Your task to perform on an android device: turn on javascript in the chrome app Image 0: 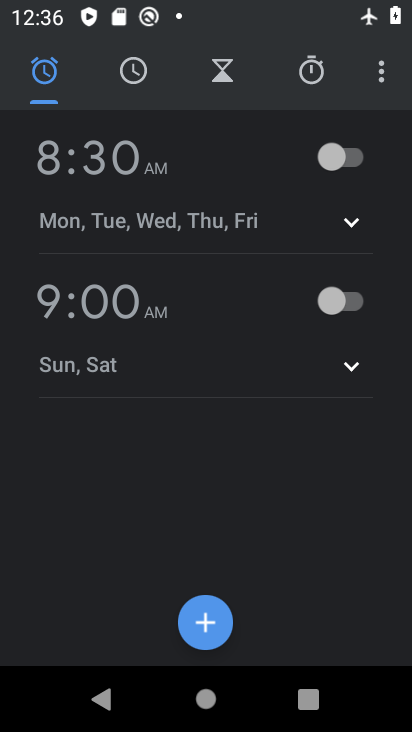
Step 0: press home button
Your task to perform on an android device: turn on javascript in the chrome app Image 1: 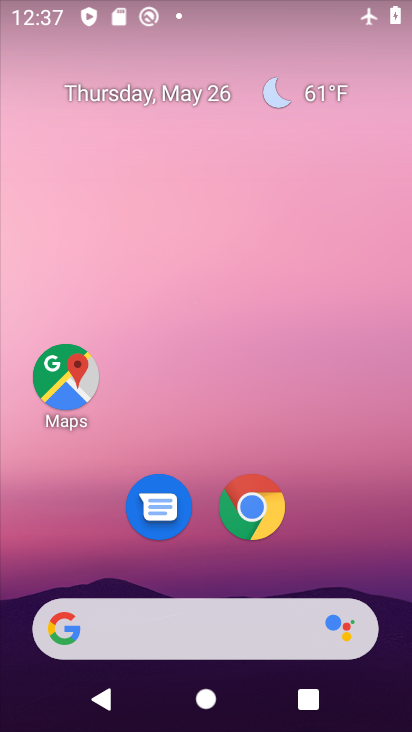
Step 1: click (259, 513)
Your task to perform on an android device: turn on javascript in the chrome app Image 2: 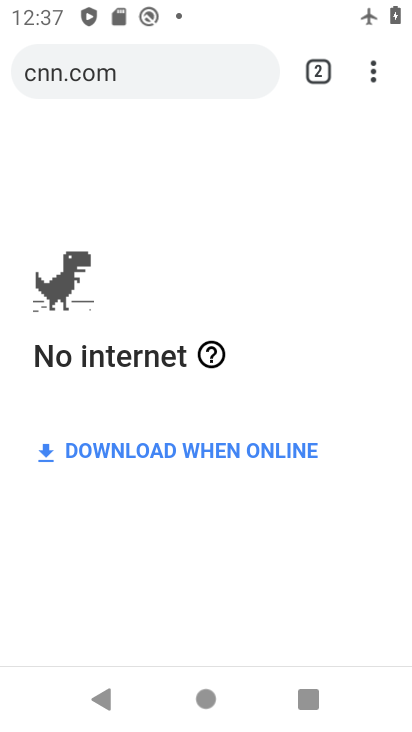
Step 2: click (370, 82)
Your task to perform on an android device: turn on javascript in the chrome app Image 3: 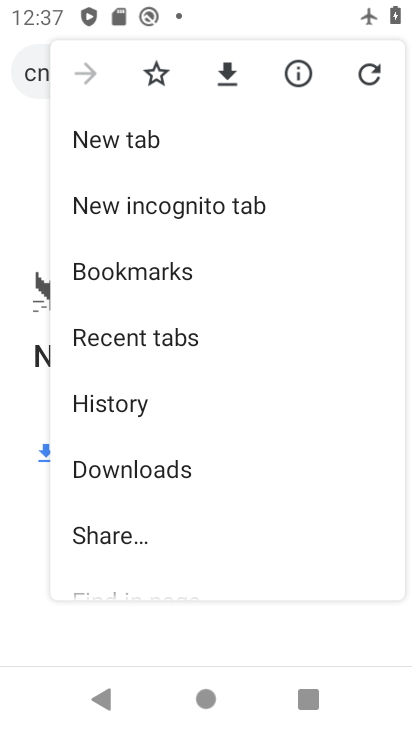
Step 3: drag from (167, 585) to (162, 475)
Your task to perform on an android device: turn on javascript in the chrome app Image 4: 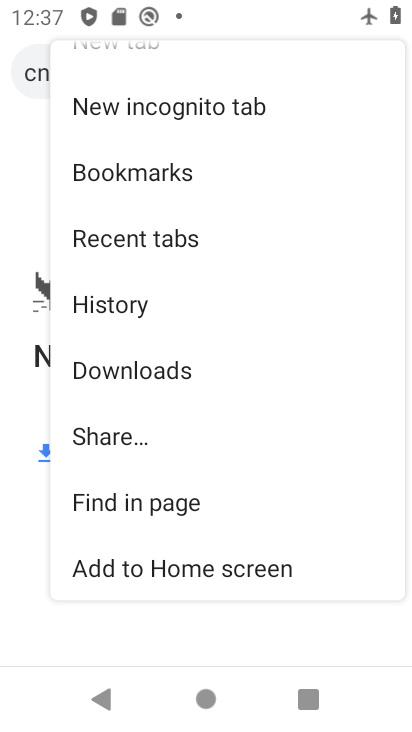
Step 4: drag from (243, 508) to (229, 165)
Your task to perform on an android device: turn on javascript in the chrome app Image 5: 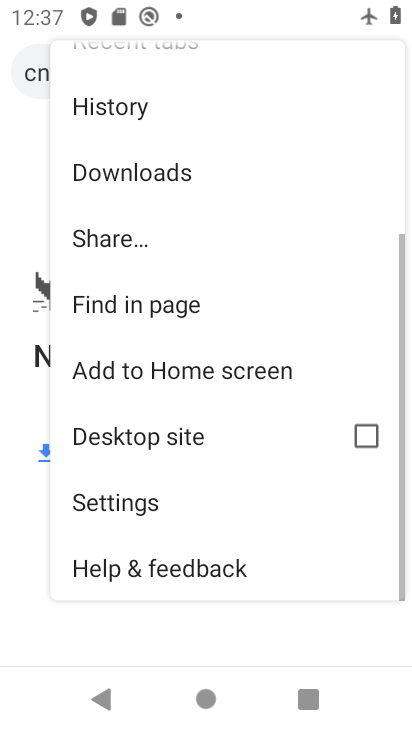
Step 5: click (195, 480)
Your task to perform on an android device: turn on javascript in the chrome app Image 6: 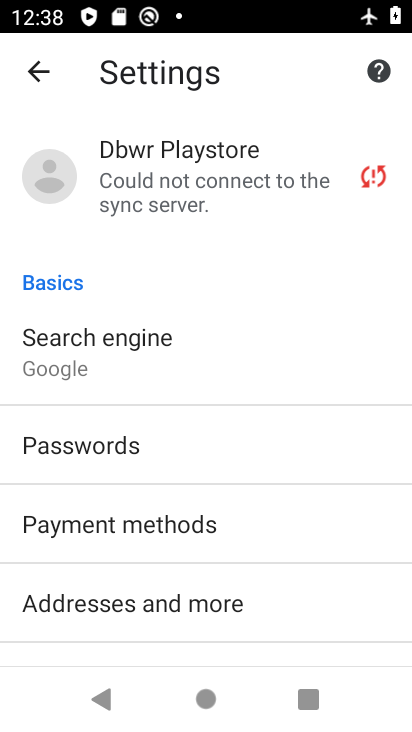
Step 6: drag from (170, 622) to (195, 256)
Your task to perform on an android device: turn on javascript in the chrome app Image 7: 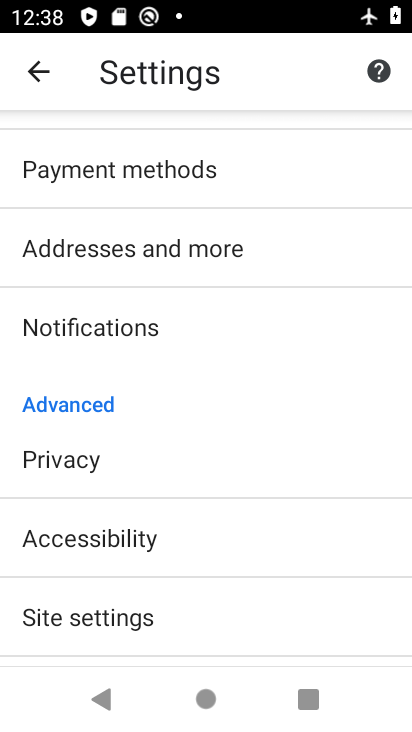
Step 7: click (172, 597)
Your task to perform on an android device: turn on javascript in the chrome app Image 8: 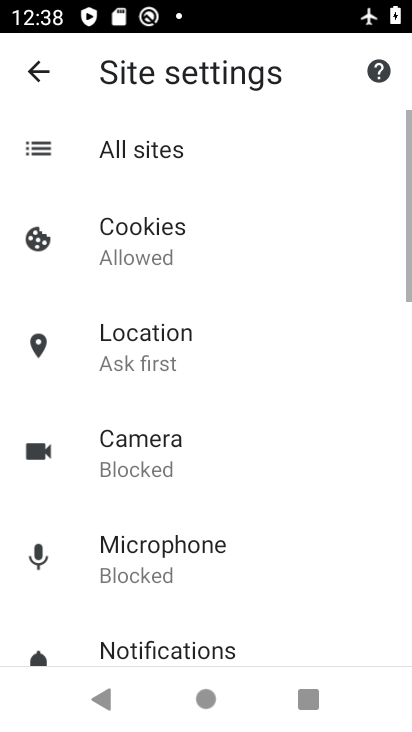
Step 8: drag from (241, 581) to (245, 341)
Your task to perform on an android device: turn on javascript in the chrome app Image 9: 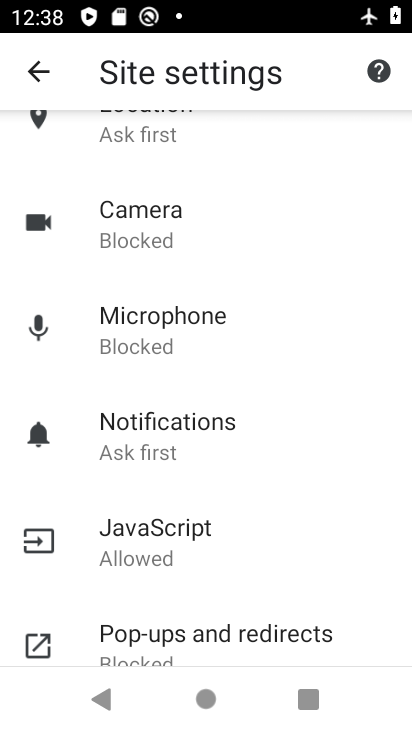
Step 9: click (276, 563)
Your task to perform on an android device: turn on javascript in the chrome app Image 10: 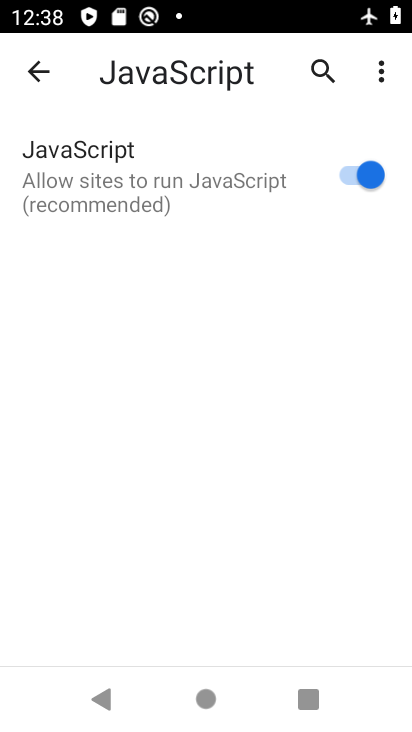
Step 10: task complete